Your task to perform on an android device: Go to Wikipedia Image 0: 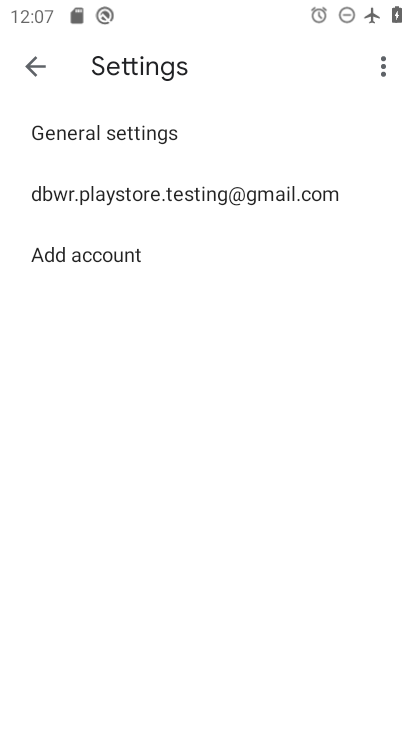
Step 0: press home button
Your task to perform on an android device: Go to Wikipedia Image 1: 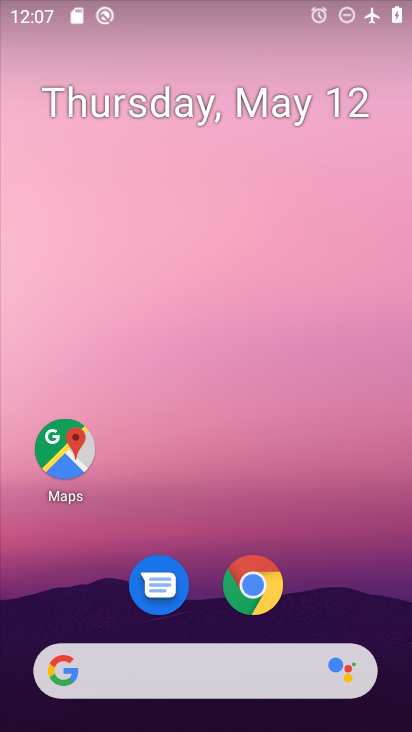
Step 1: click (257, 582)
Your task to perform on an android device: Go to Wikipedia Image 2: 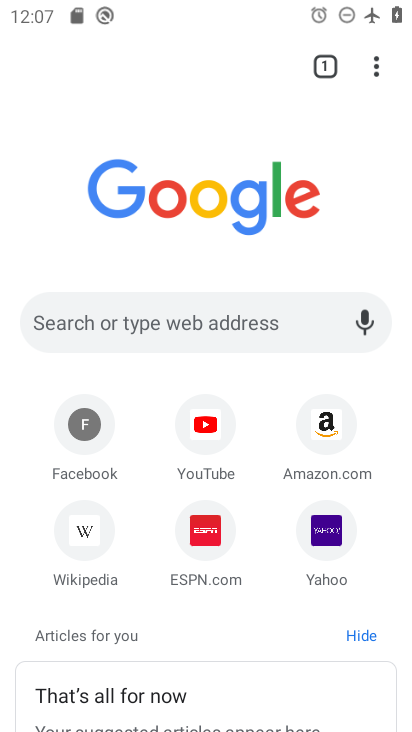
Step 2: click (94, 531)
Your task to perform on an android device: Go to Wikipedia Image 3: 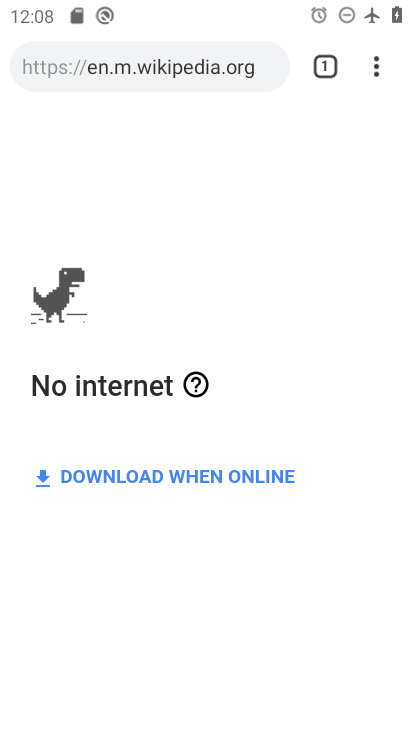
Step 3: task complete